Your task to perform on an android device: Open maps Image 0: 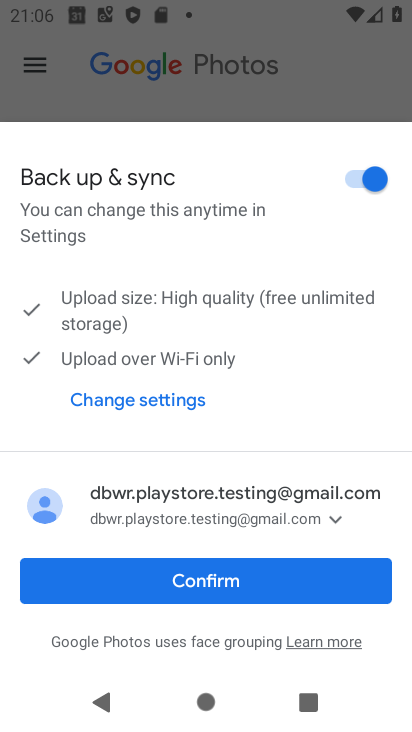
Step 0: press home button
Your task to perform on an android device: Open maps Image 1: 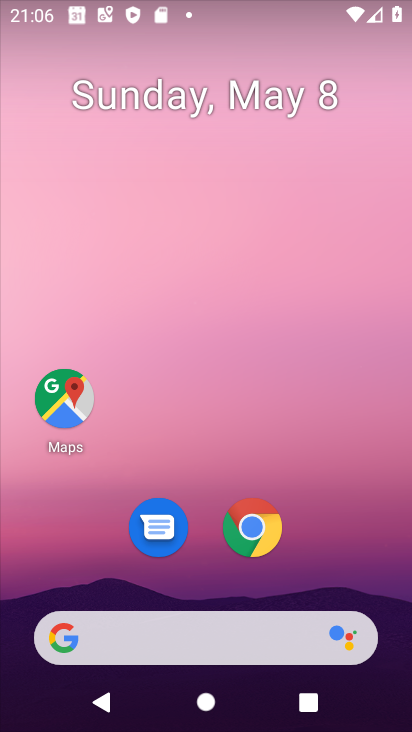
Step 1: click (67, 402)
Your task to perform on an android device: Open maps Image 2: 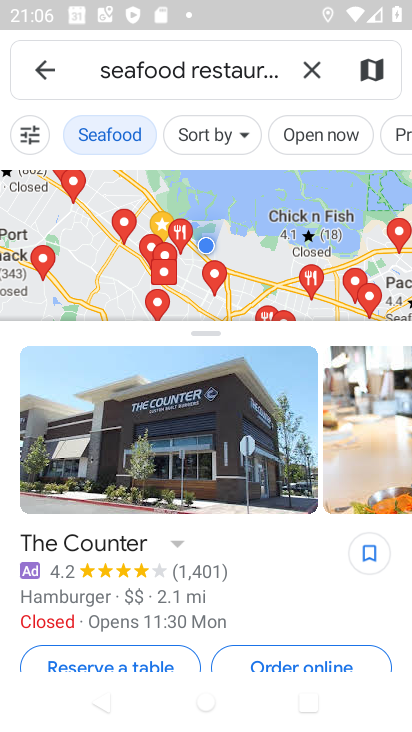
Step 2: task complete